Your task to perform on an android device: uninstall "Microsoft Outlook" Image 0: 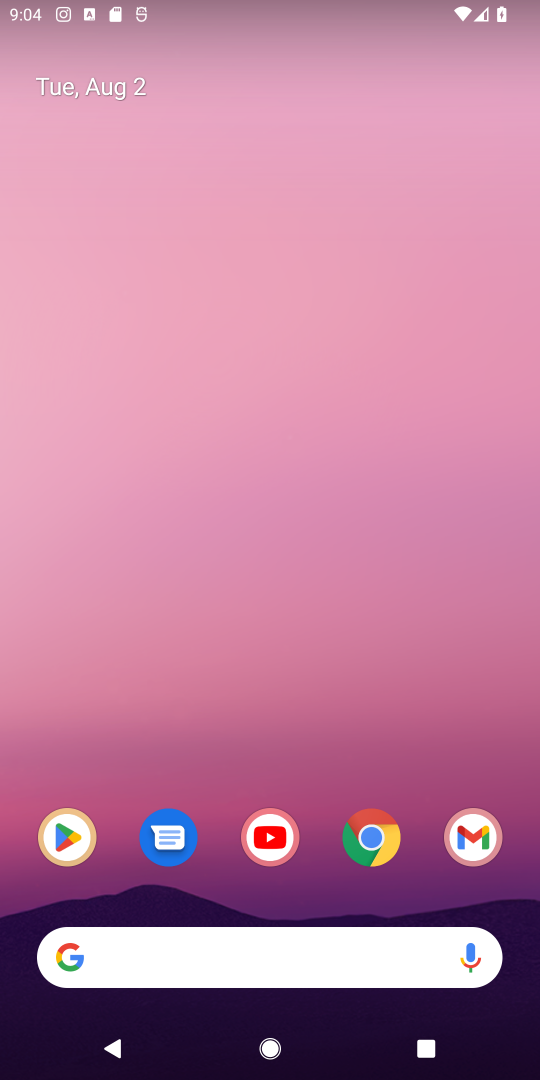
Step 0: click (65, 850)
Your task to perform on an android device: uninstall "Microsoft Outlook" Image 1: 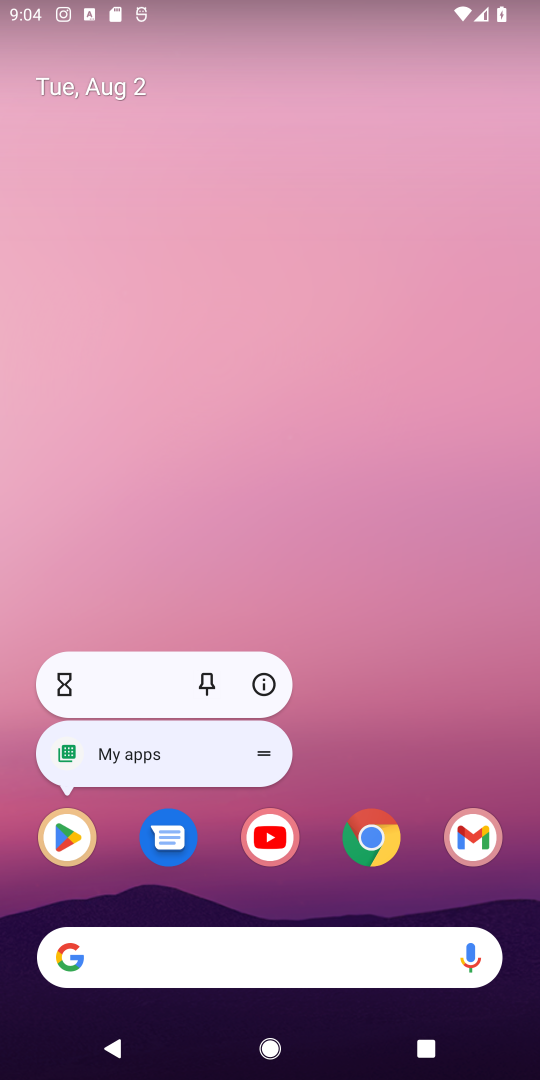
Step 1: click (65, 850)
Your task to perform on an android device: uninstall "Microsoft Outlook" Image 2: 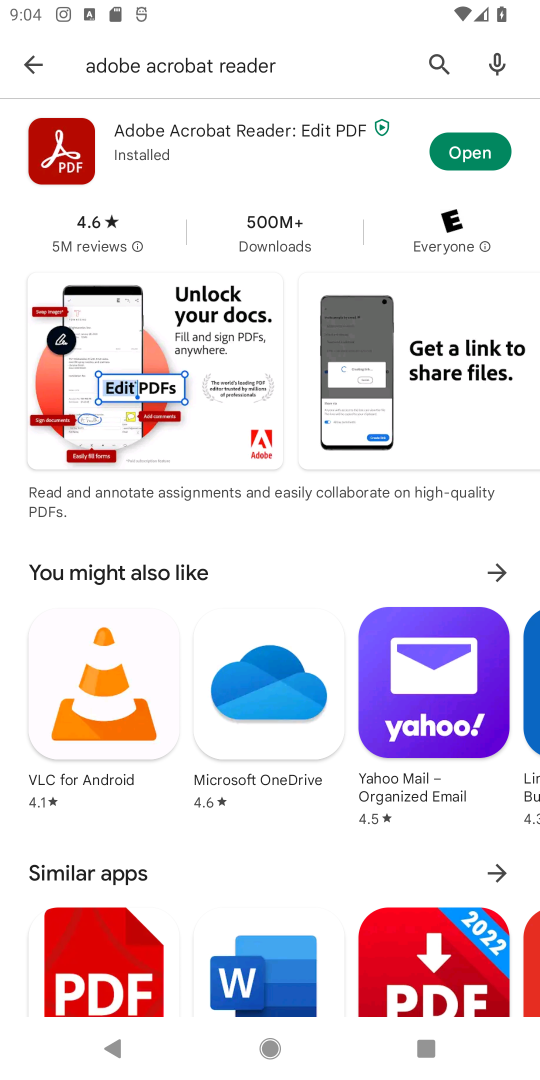
Step 2: click (435, 61)
Your task to perform on an android device: uninstall "Microsoft Outlook" Image 3: 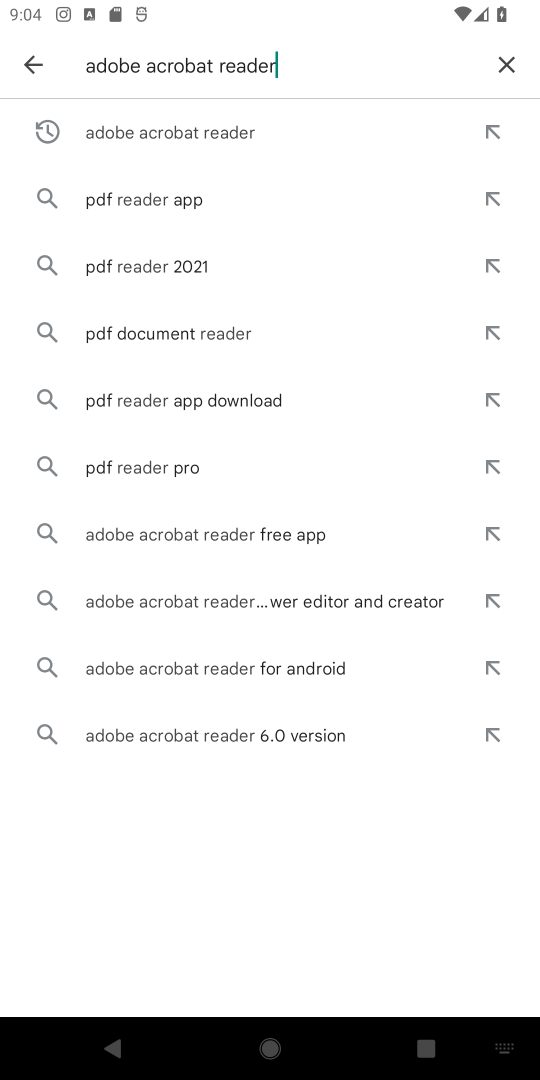
Step 3: click (501, 68)
Your task to perform on an android device: uninstall "Microsoft Outlook" Image 4: 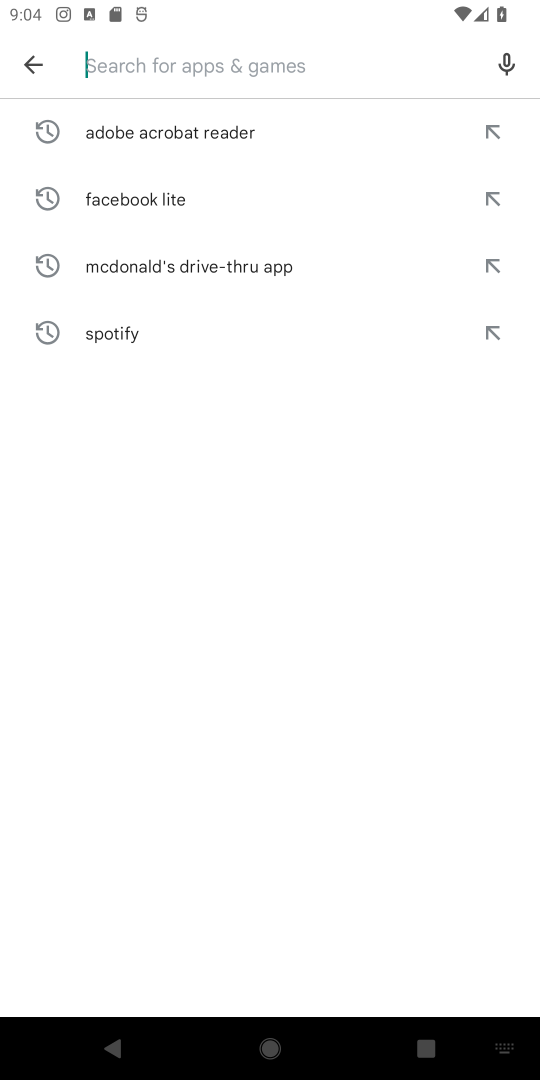
Step 4: type "Microsoft Outlook"
Your task to perform on an android device: uninstall "Microsoft Outlook" Image 5: 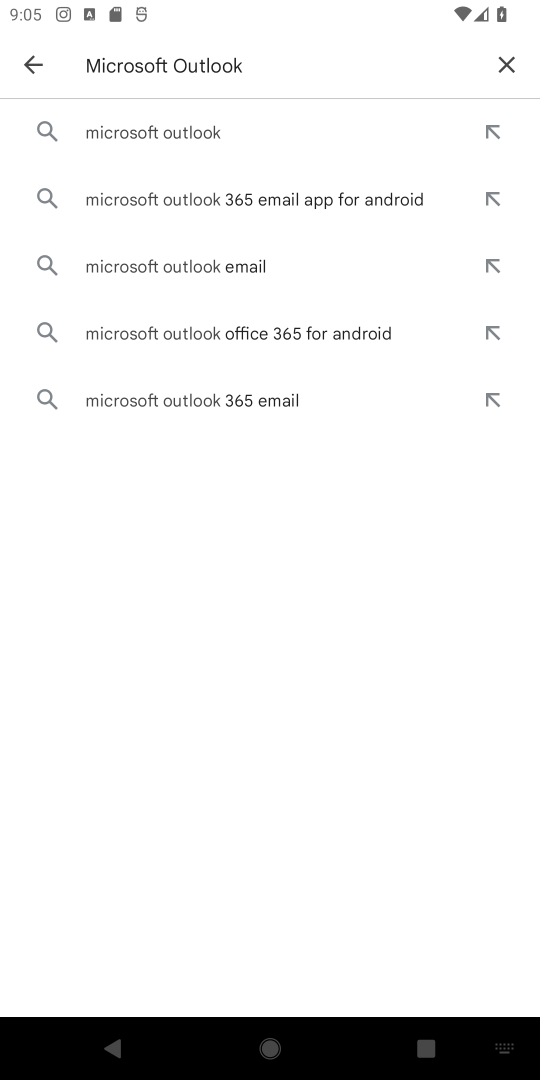
Step 5: click (162, 142)
Your task to perform on an android device: uninstall "Microsoft Outlook" Image 6: 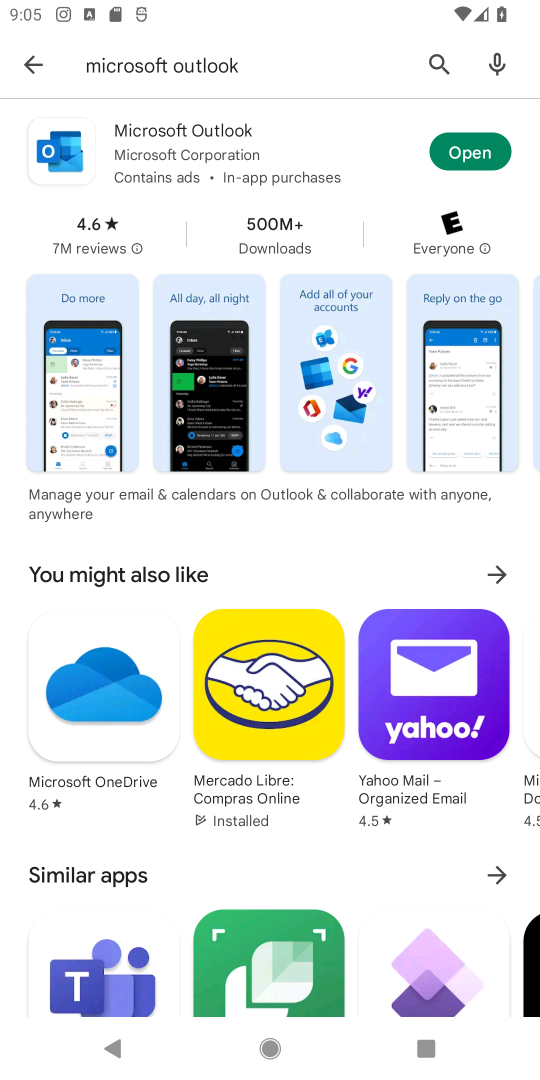
Step 6: click (139, 148)
Your task to perform on an android device: uninstall "Microsoft Outlook" Image 7: 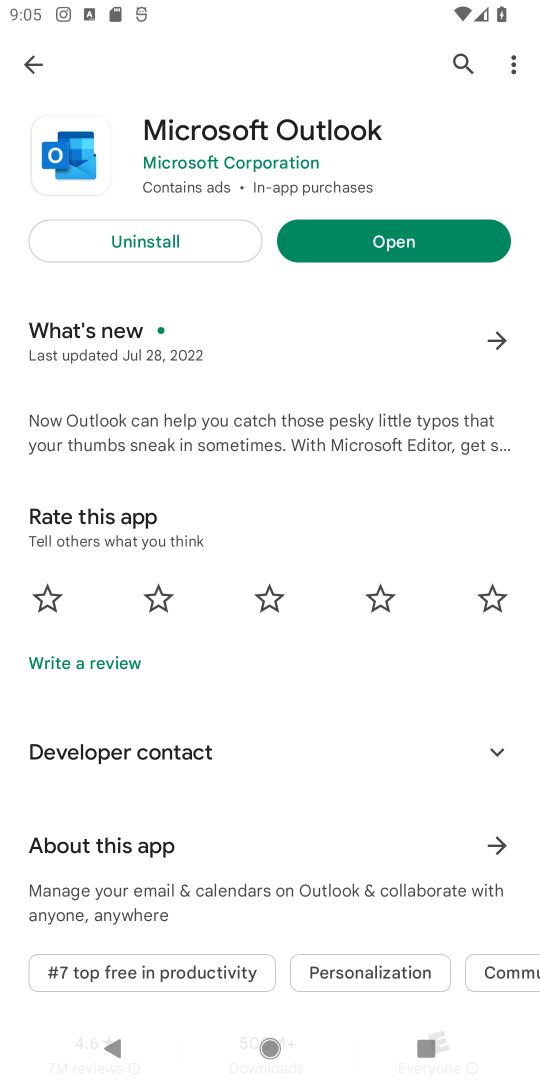
Step 7: click (125, 258)
Your task to perform on an android device: uninstall "Microsoft Outlook" Image 8: 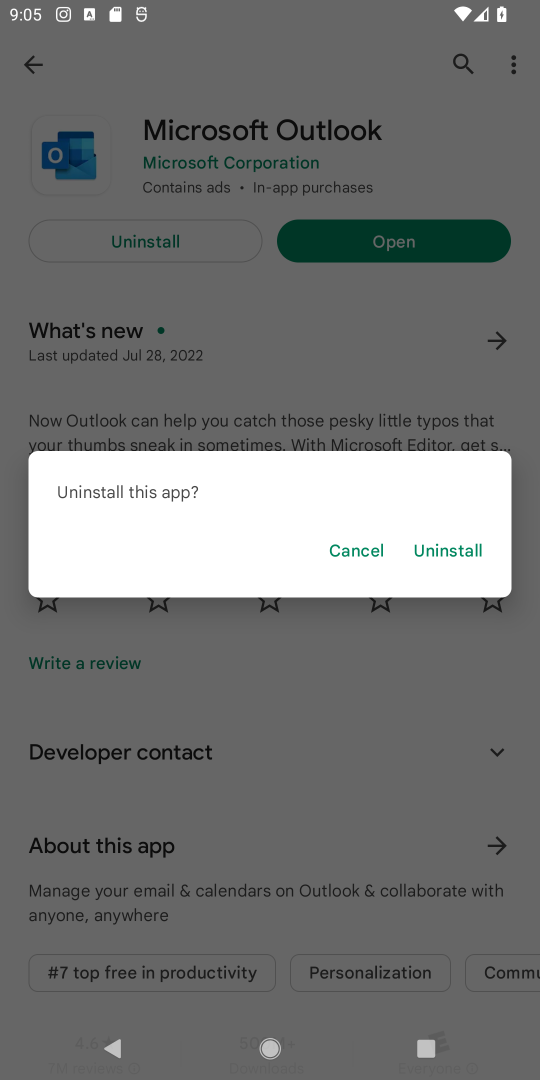
Step 8: click (447, 552)
Your task to perform on an android device: uninstall "Microsoft Outlook" Image 9: 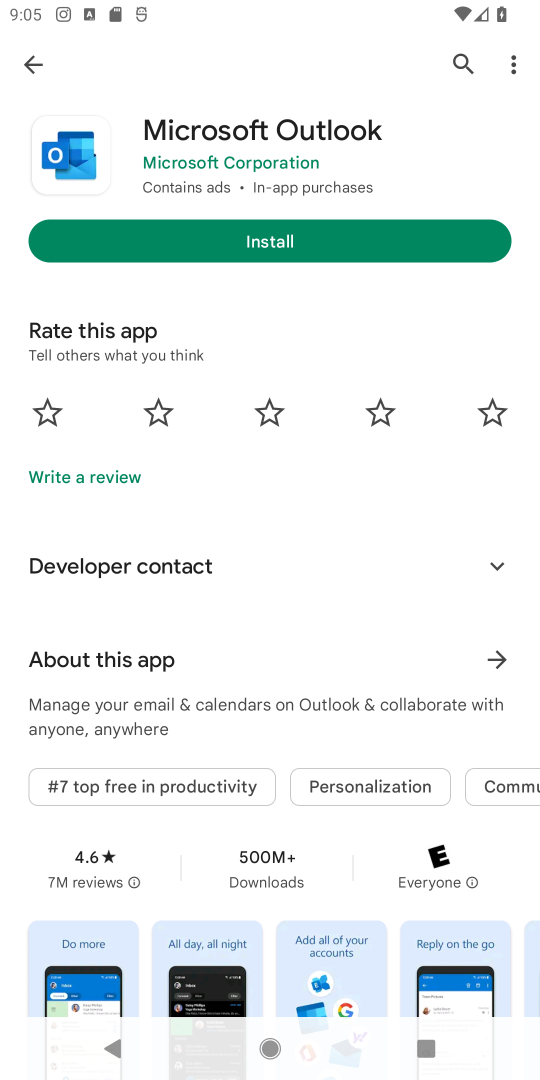
Step 9: task complete